Your task to perform on an android device: turn off airplane mode Image 0: 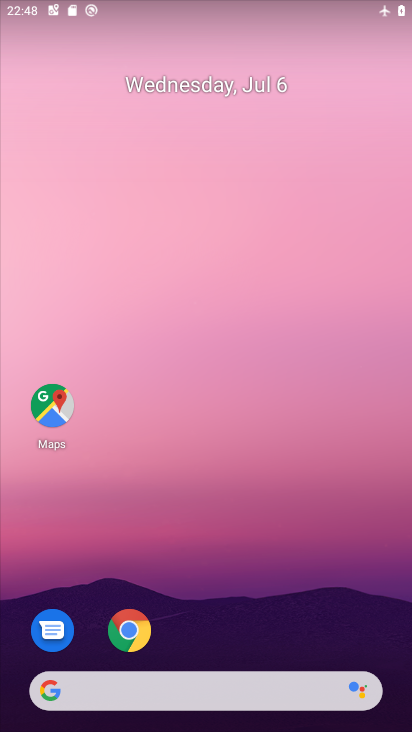
Step 0: drag from (193, 626) to (238, 169)
Your task to perform on an android device: turn off airplane mode Image 1: 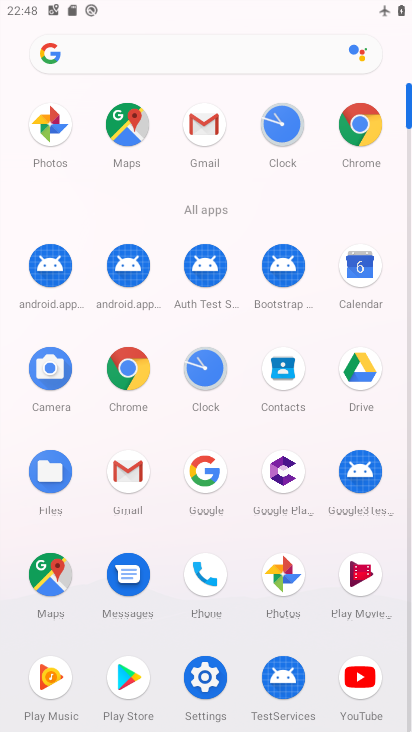
Step 1: drag from (225, 553) to (284, 193)
Your task to perform on an android device: turn off airplane mode Image 2: 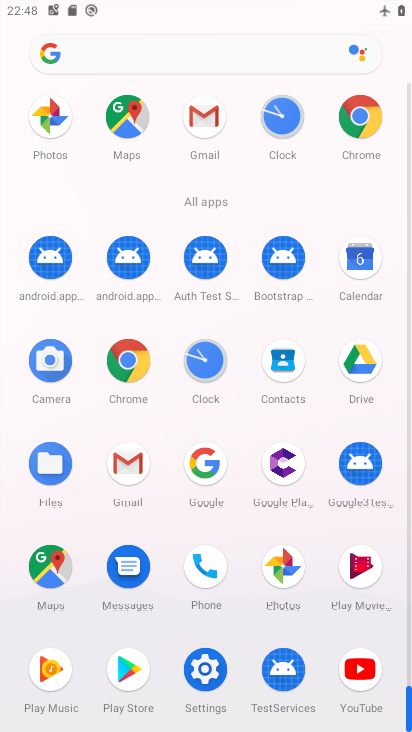
Step 2: click (200, 672)
Your task to perform on an android device: turn off airplane mode Image 3: 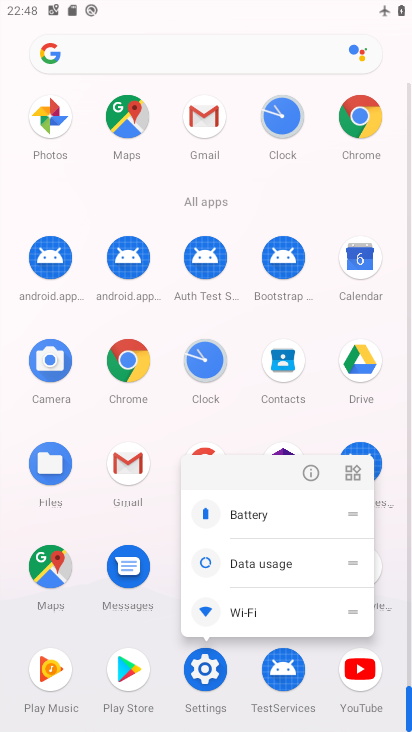
Step 3: click (313, 477)
Your task to perform on an android device: turn off airplane mode Image 4: 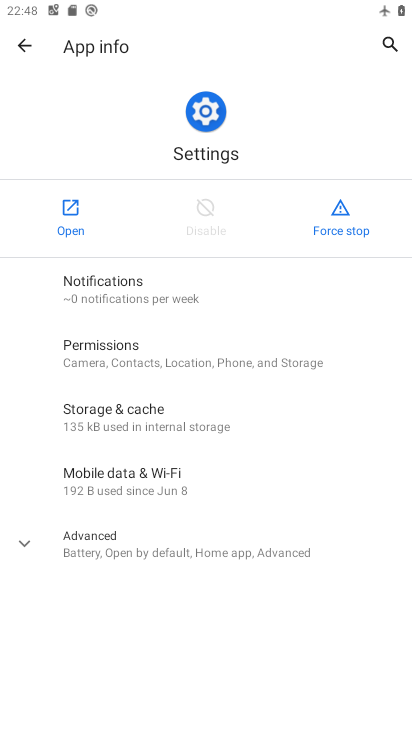
Step 4: click (69, 221)
Your task to perform on an android device: turn off airplane mode Image 5: 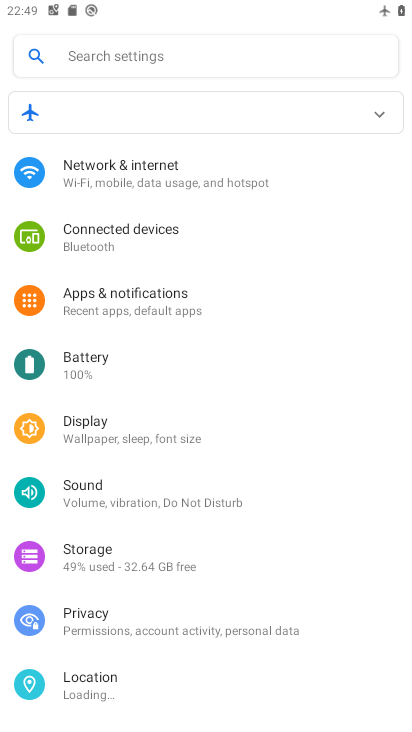
Step 5: click (226, 177)
Your task to perform on an android device: turn off airplane mode Image 6: 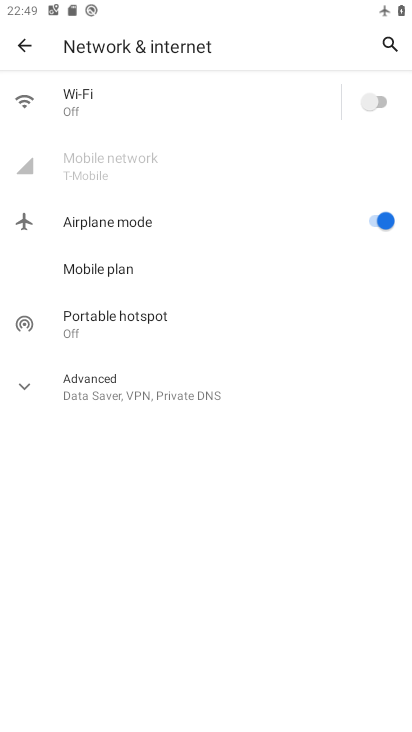
Step 6: click (377, 220)
Your task to perform on an android device: turn off airplane mode Image 7: 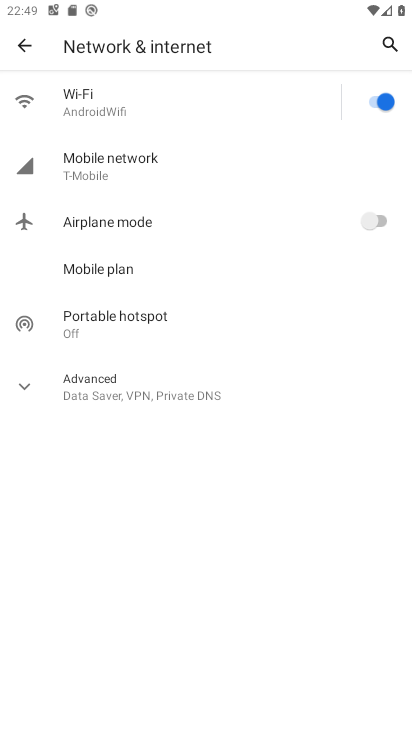
Step 7: task complete